Your task to perform on an android device: star an email in the gmail app Image 0: 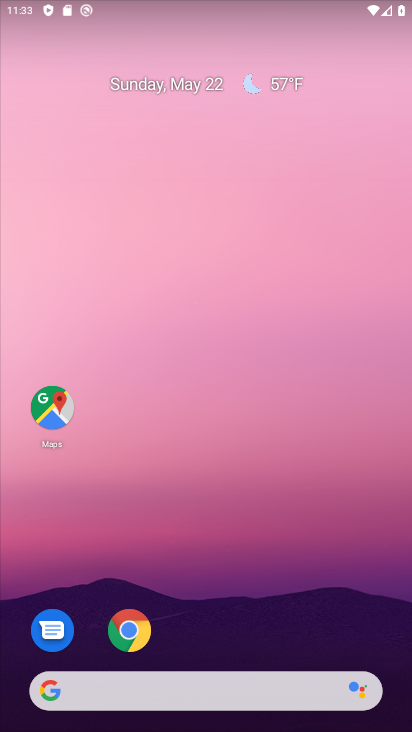
Step 0: drag from (292, 567) to (222, 66)
Your task to perform on an android device: star an email in the gmail app Image 1: 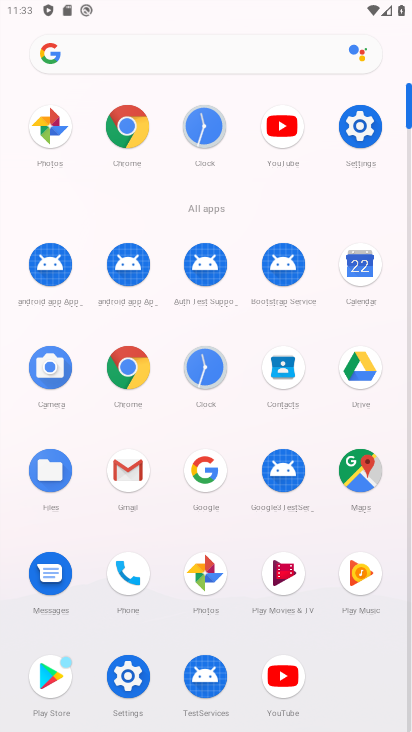
Step 1: click (129, 479)
Your task to perform on an android device: star an email in the gmail app Image 2: 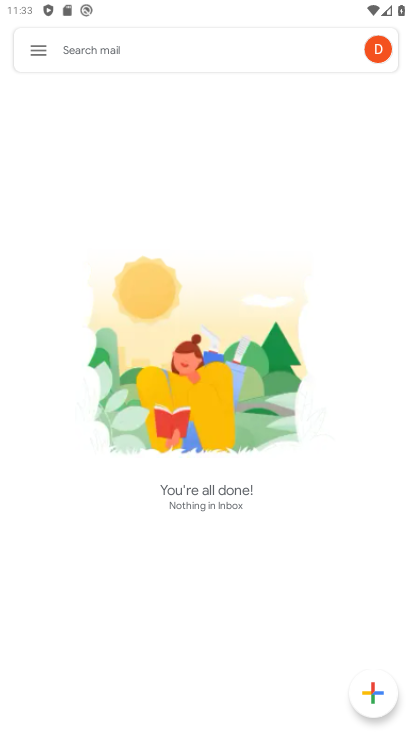
Step 2: click (23, 53)
Your task to perform on an android device: star an email in the gmail app Image 3: 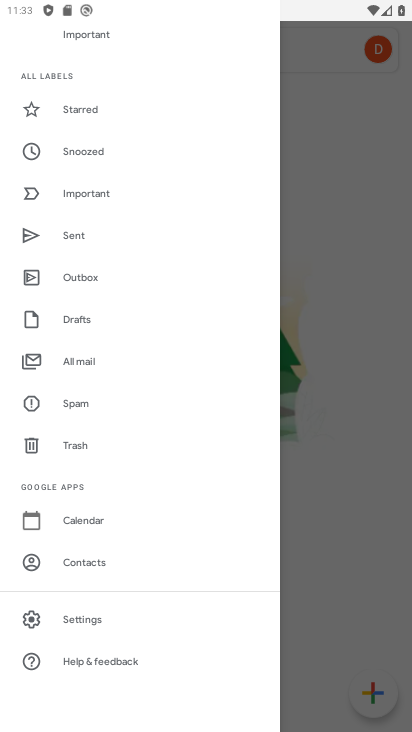
Step 3: click (103, 364)
Your task to perform on an android device: star an email in the gmail app Image 4: 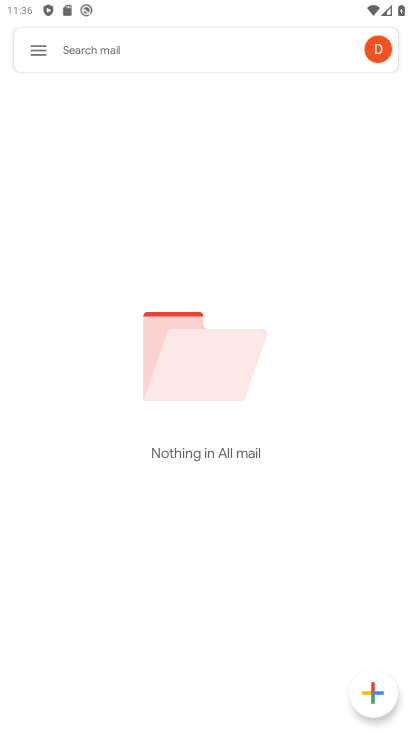
Step 4: task complete